Your task to perform on an android device: Go to Maps Image 0: 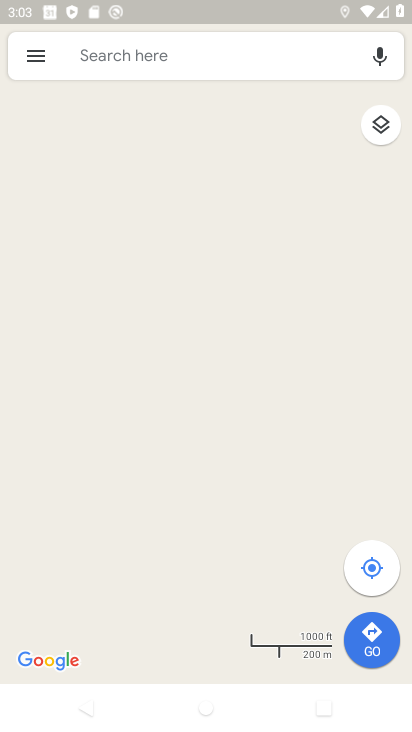
Step 0: press back button
Your task to perform on an android device: Go to Maps Image 1: 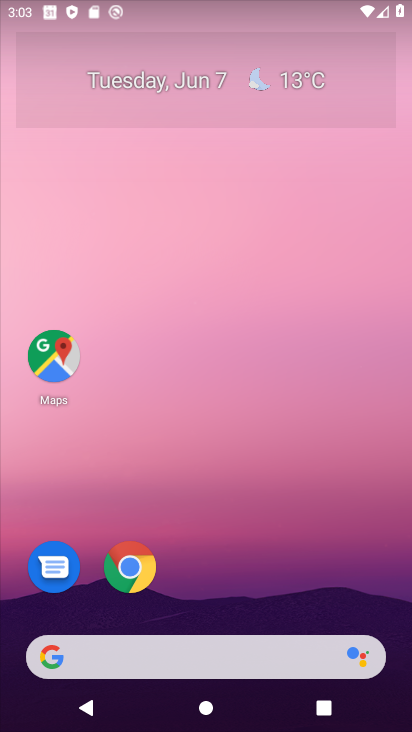
Step 1: click (51, 350)
Your task to perform on an android device: Go to Maps Image 2: 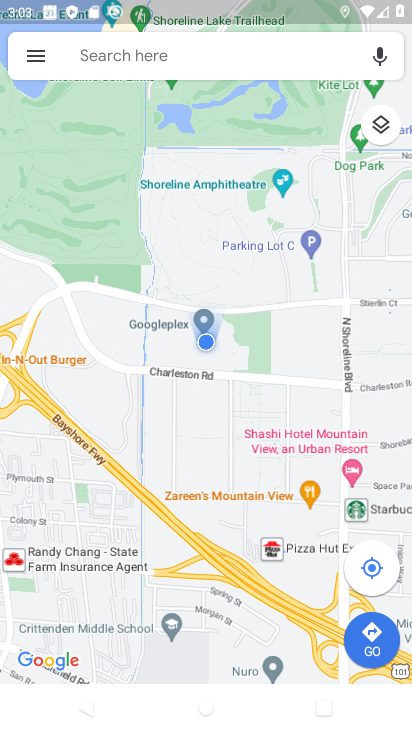
Step 2: task complete